Your task to perform on an android device: open the mobile data screen to see how much data has been used Image 0: 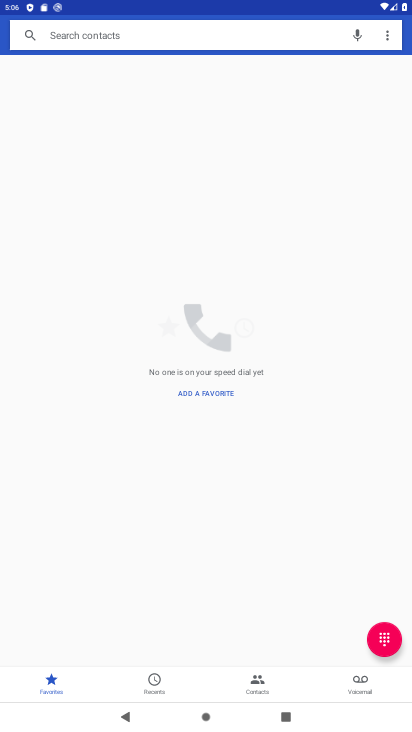
Step 0: press home button
Your task to perform on an android device: open the mobile data screen to see how much data has been used Image 1: 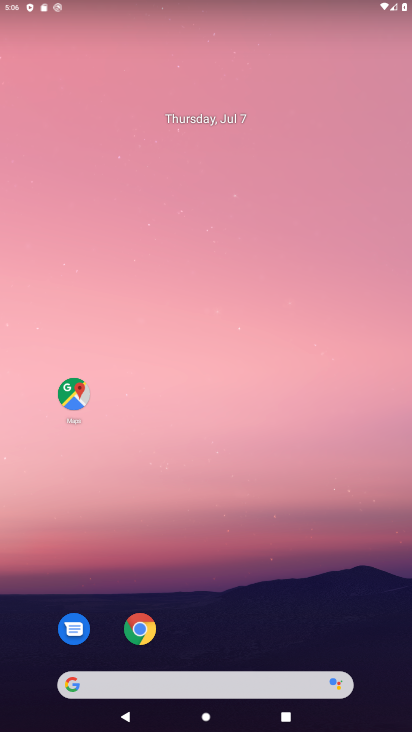
Step 1: drag from (301, 5) to (308, 501)
Your task to perform on an android device: open the mobile data screen to see how much data has been used Image 2: 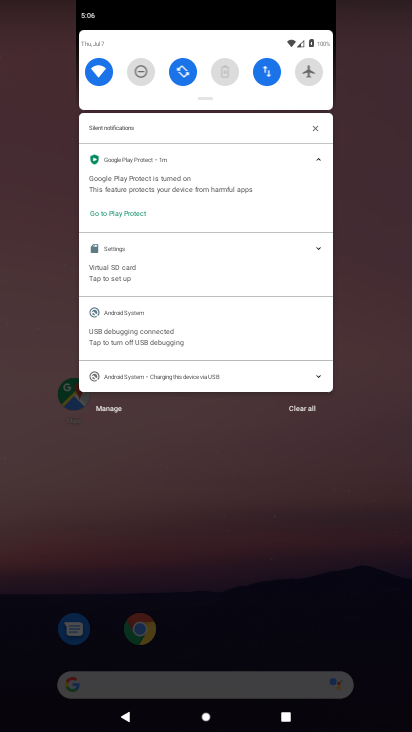
Step 2: drag from (205, 95) to (209, 485)
Your task to perform on an android device: open the mobile data screen to see how much data has been used Image 3: 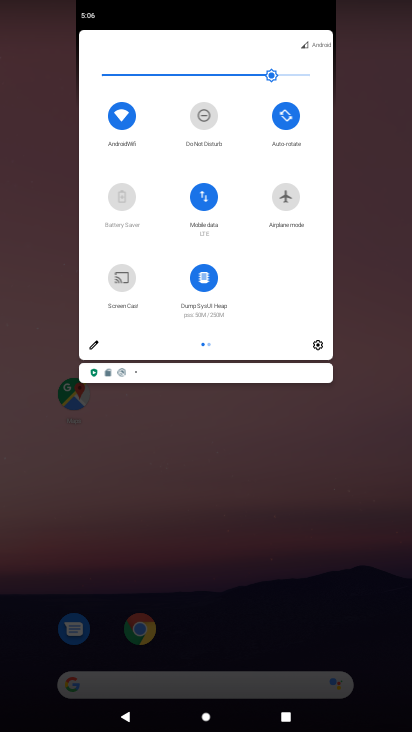
Step 3: click (214, 197)
Your task to perform on an android device: open the mobile data screen to see how much data has been used Image 4: 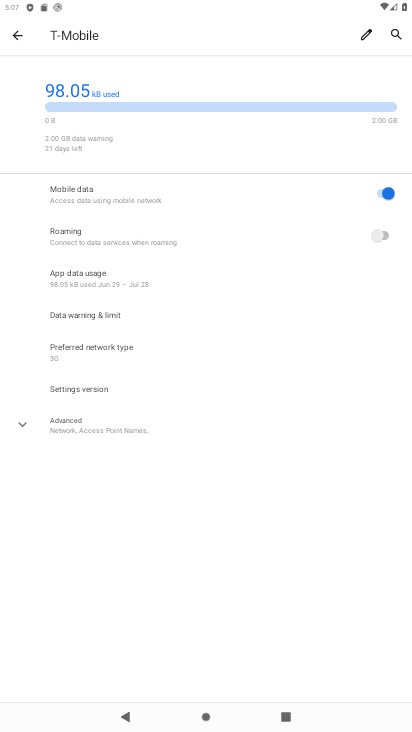
Step 4: task complete